Your task to perform on an android device: Search for logitech g pro on ebay, select the first entry, add it to the cart, then select checkout. Image 0: 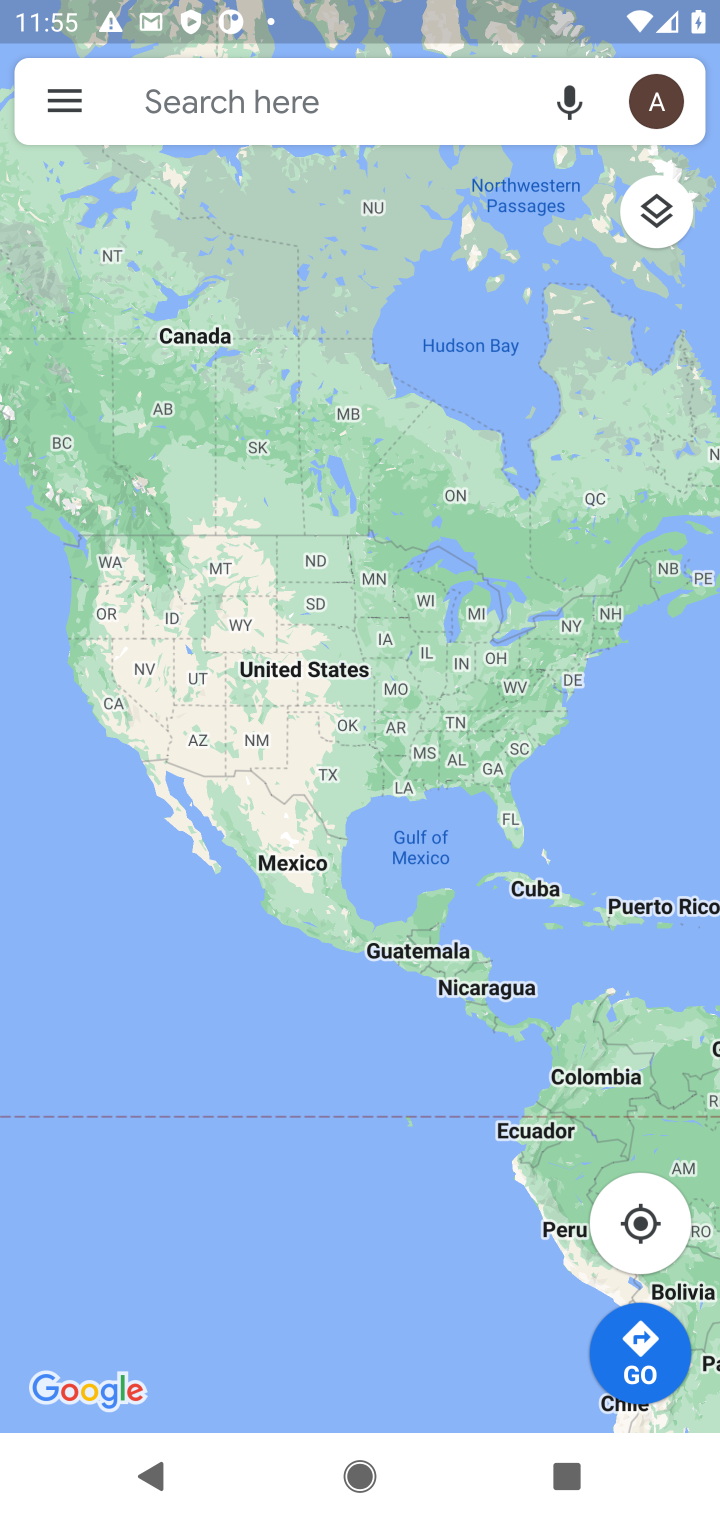
Step 0: press home button
Your task to perform on an android device: Search for logitech g pro on ebay, select the first entry, add it to the cart, then select checkout. Image 1: 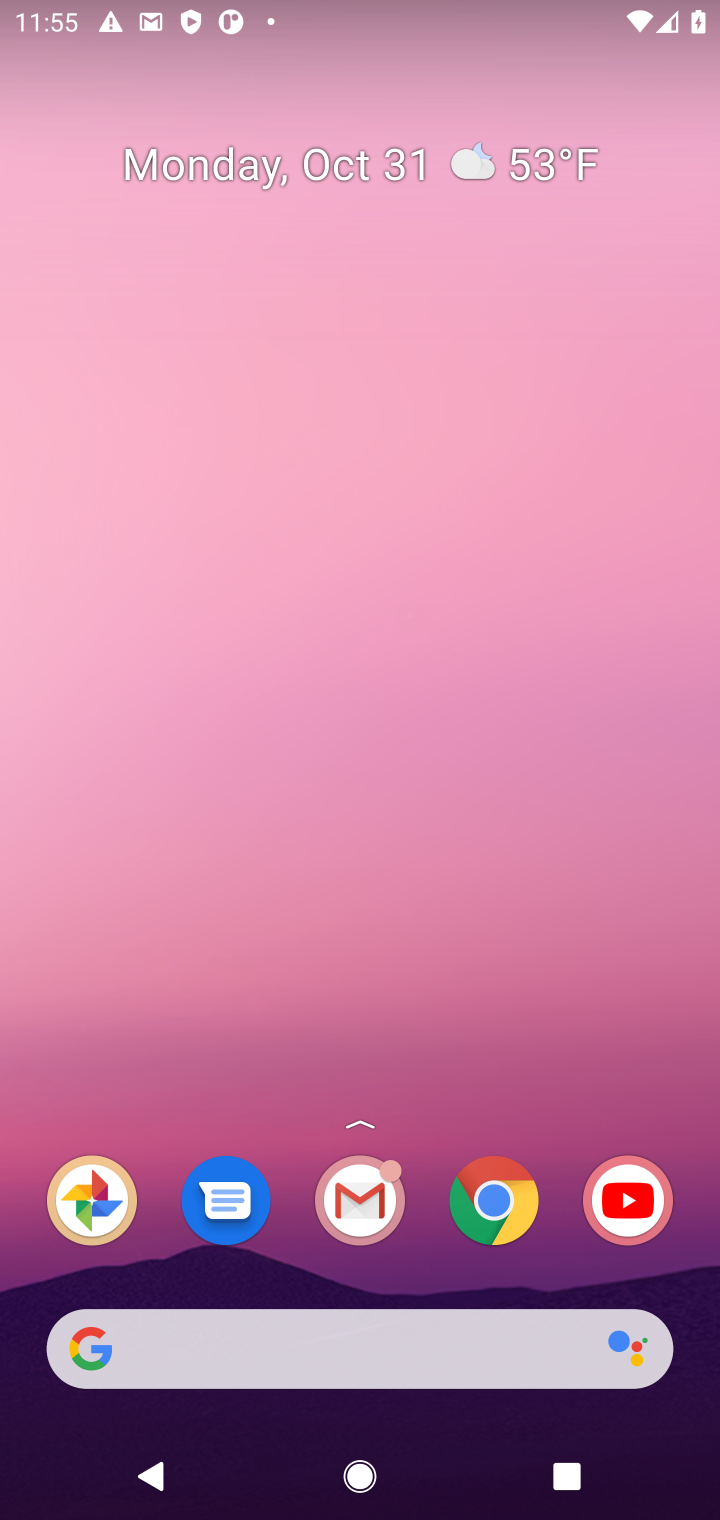
Step 1: click (518, 1218)
Your task to perform on an android device: Search for logitech g pro on ebay, select the first entry, add it to the cart, then select checkout. Image 2: 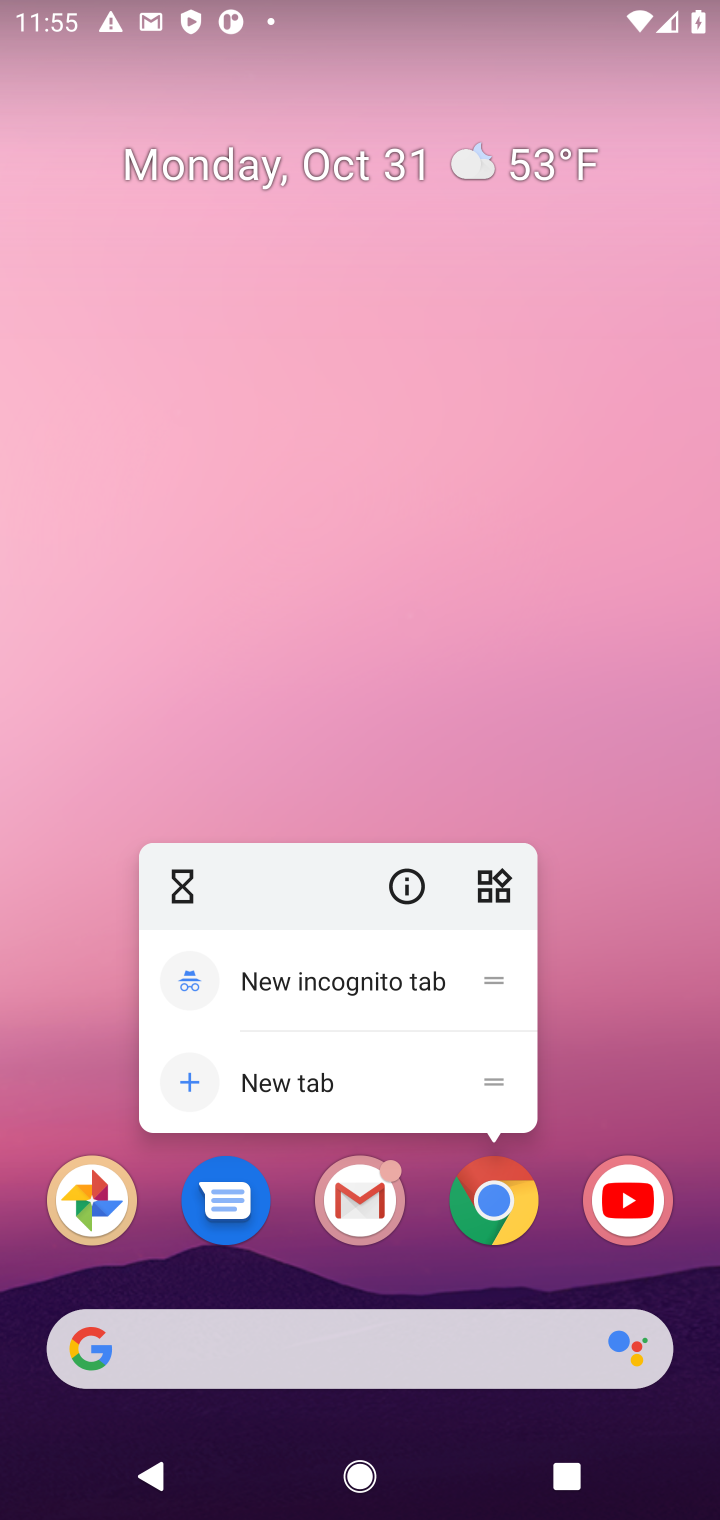
Step 2: click (491, 1194)
Your task to perform on an android device: Search for logitech g pro on ebay, select the first entry, add it to the cart, then select checkout. Image 3: 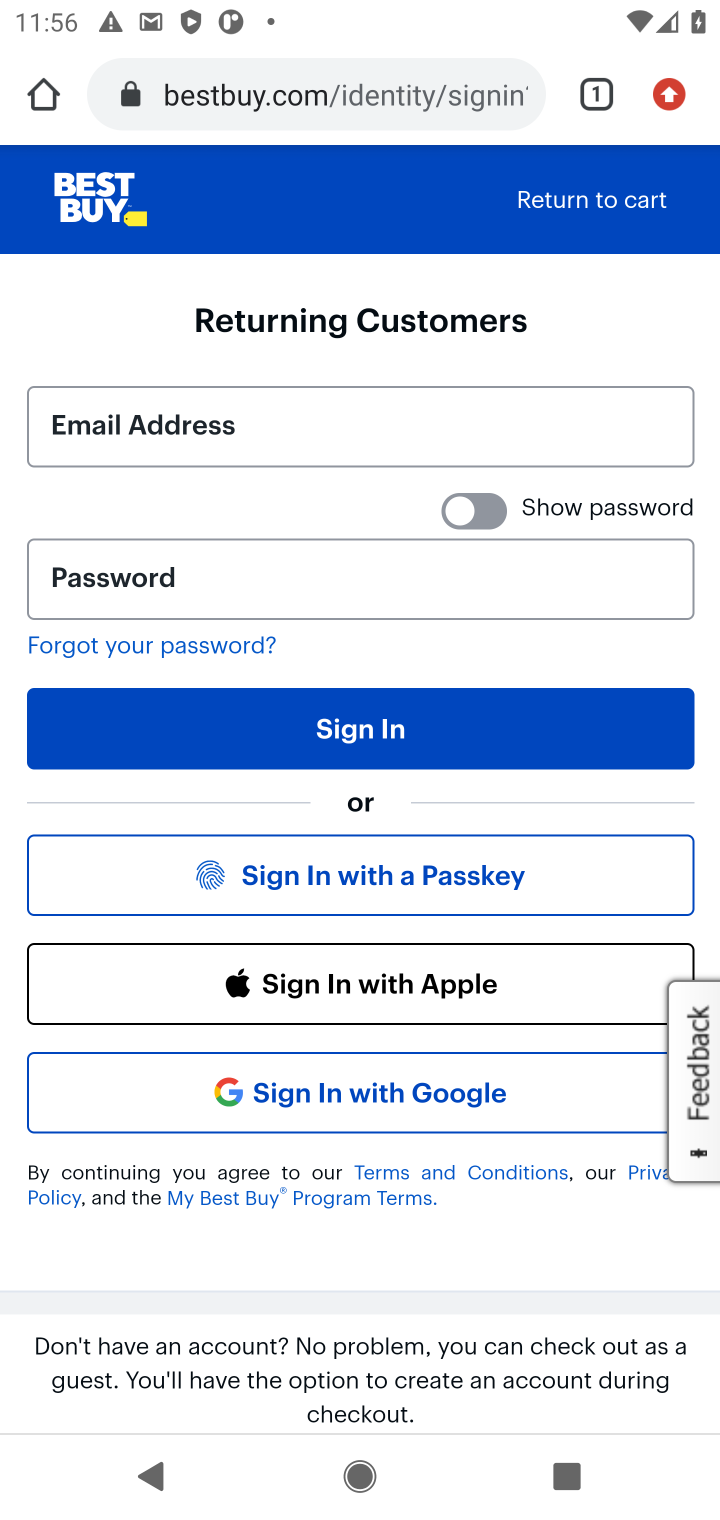
Step 3: click (240, 79)
Your task to perform on an android device: Search for logitech g pro on ebay, select the first entry, add it to the cart, then select checkout. Image 4: 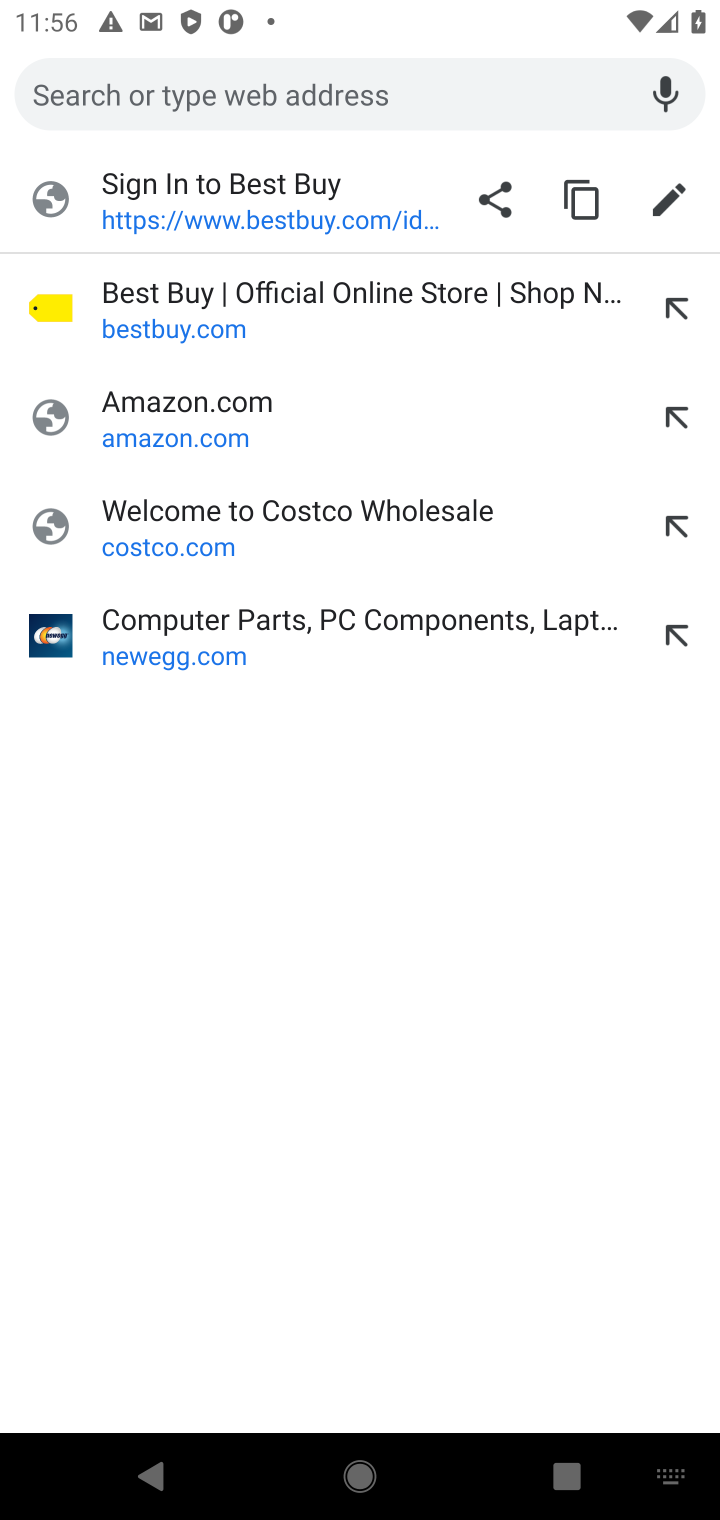
Step 4: type "ebay"
Your task to perform on an android device: Search for logitech g pro on ebay, select the first entry, add it to the cart, then select checkout. Image 5: 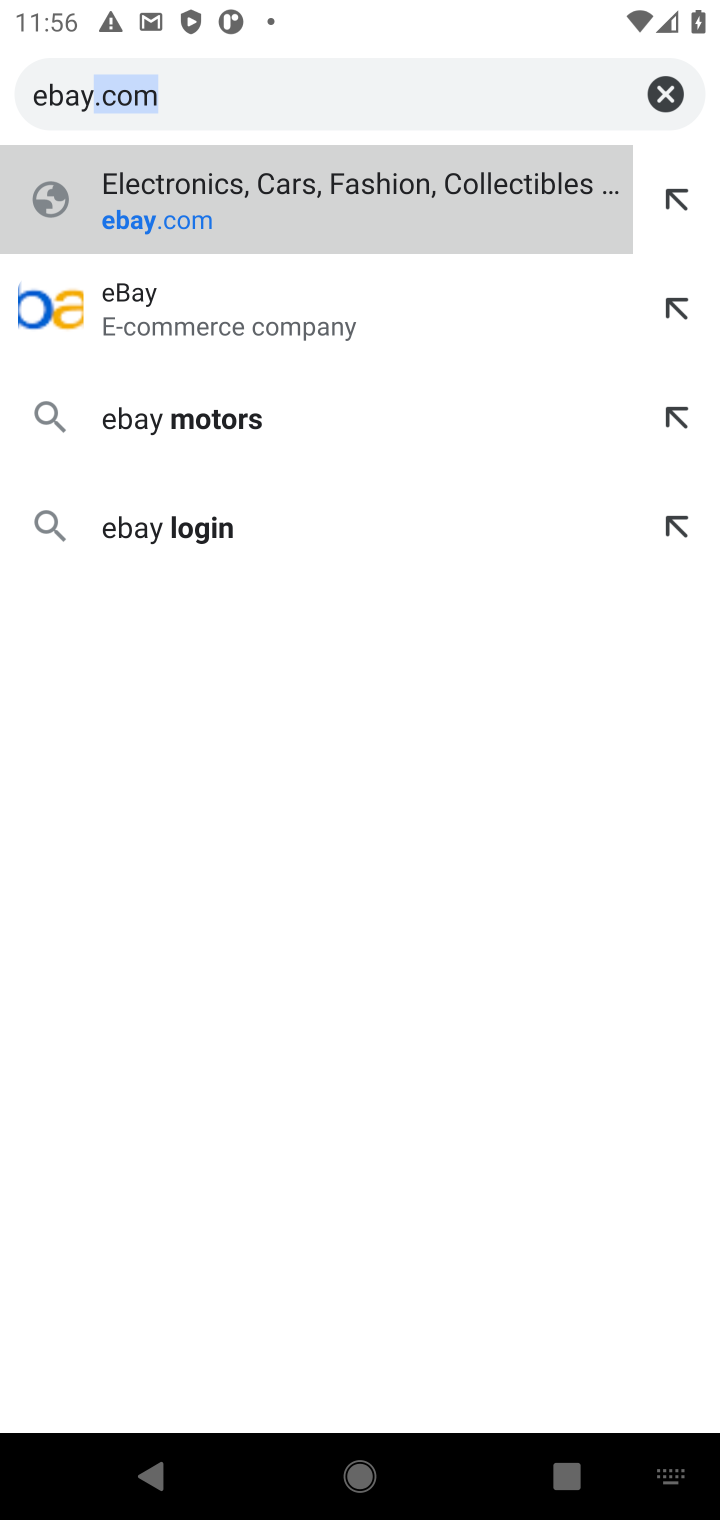
Step 5: type ""
Your task to perform on an android device: Search for logitech g pro on ebay, select the first entry, add it to the cart, then select checkout. Image 6: 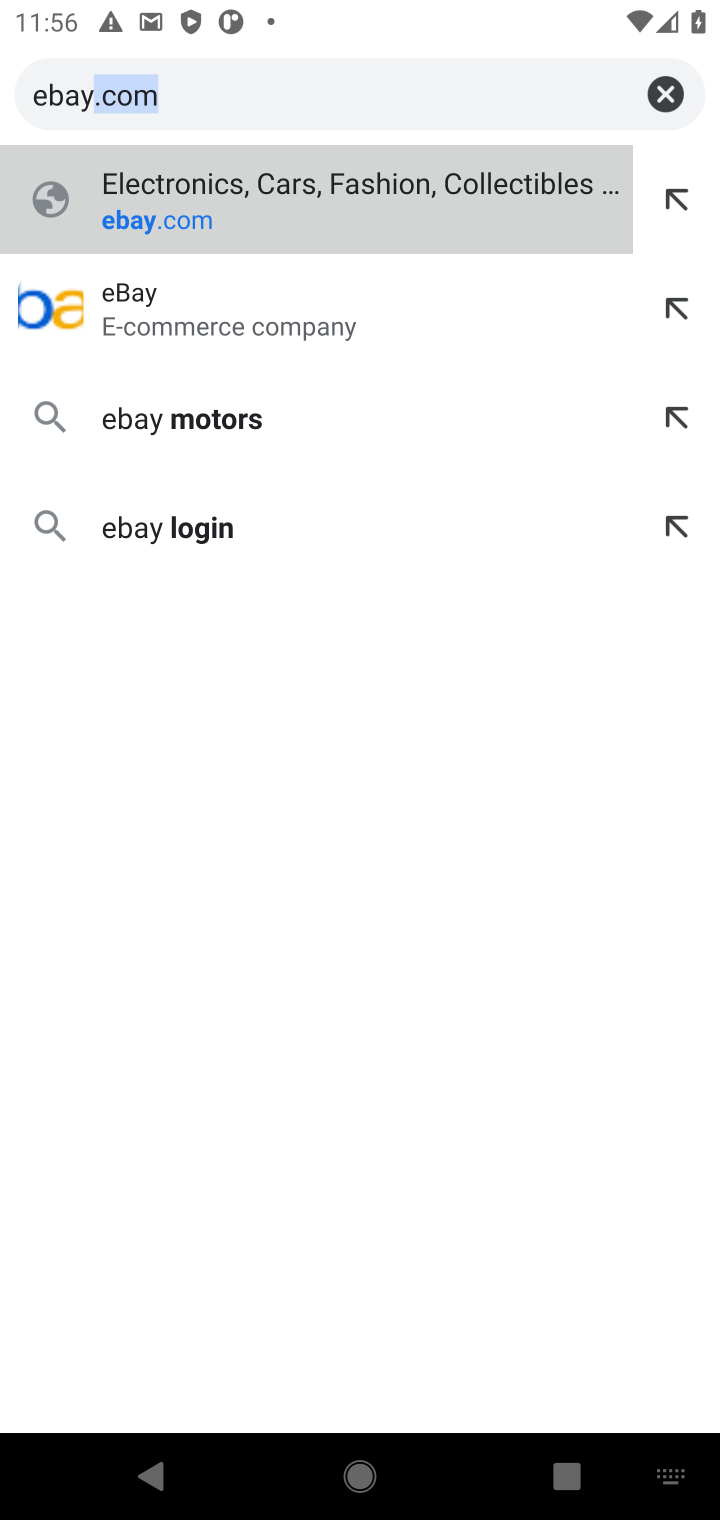
Step 6: click (435, 214)
Your task to perform on an android device: Search for logitech g pro on ebay, select the first entry, add it to the cart, then select checkout. Image 7: 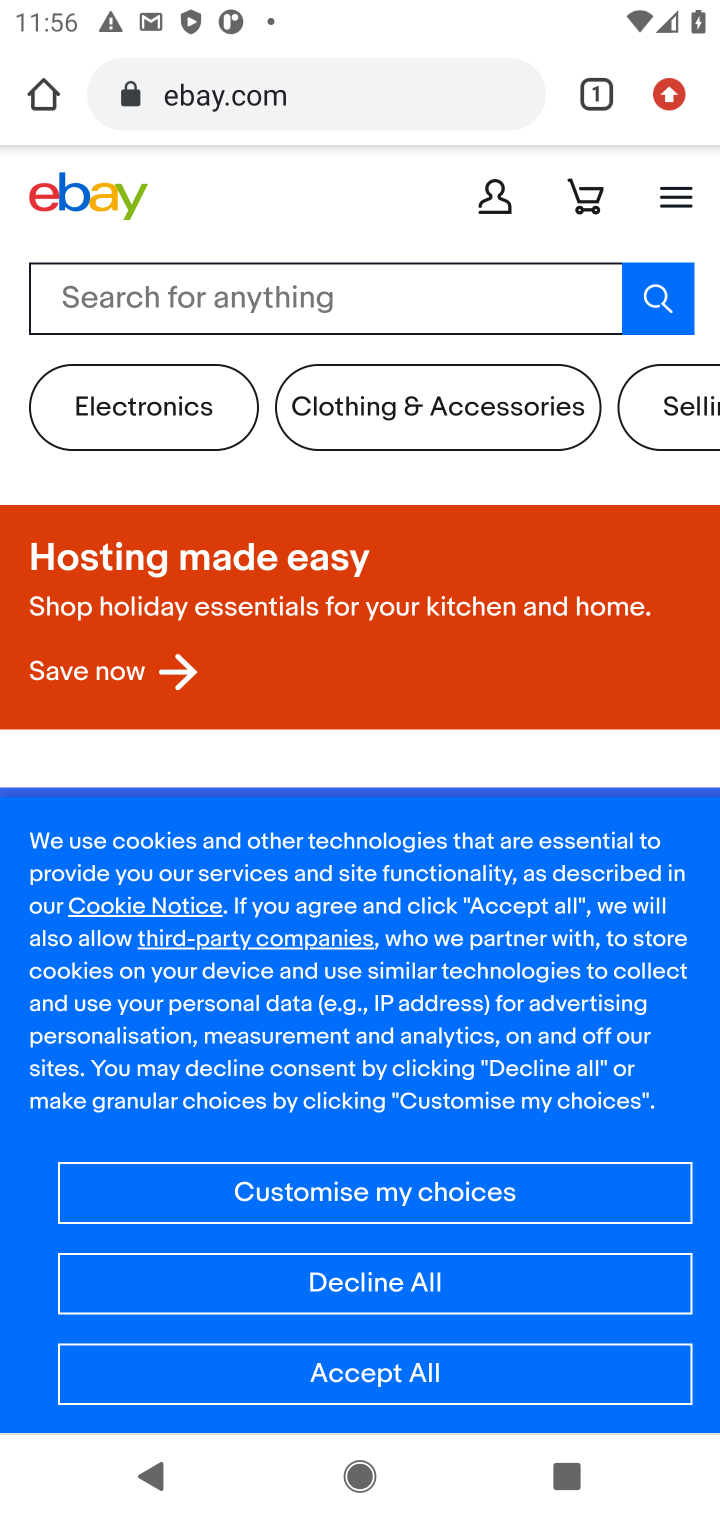
Step 7: click (251, 289)
Your task to perform on an android device: Search for logitech g pro on ebay, select the first entry, add it to the cart, then select checkout. Image 8: 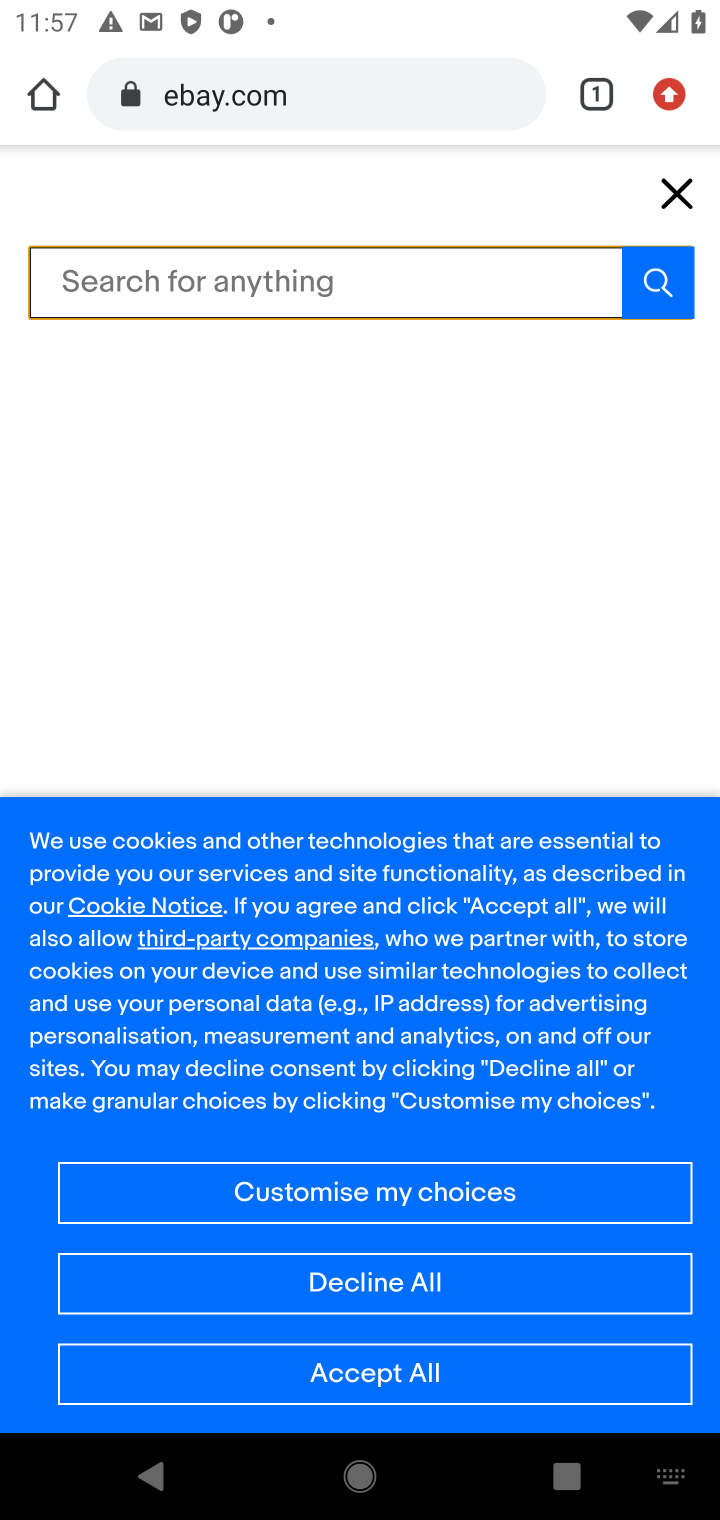
Step 8: type " logitech g pro "
Your task to perform on an android device: Search for logitech g pro on ebay, select the first entry, add it to the cart, then select checkout. Image 9: 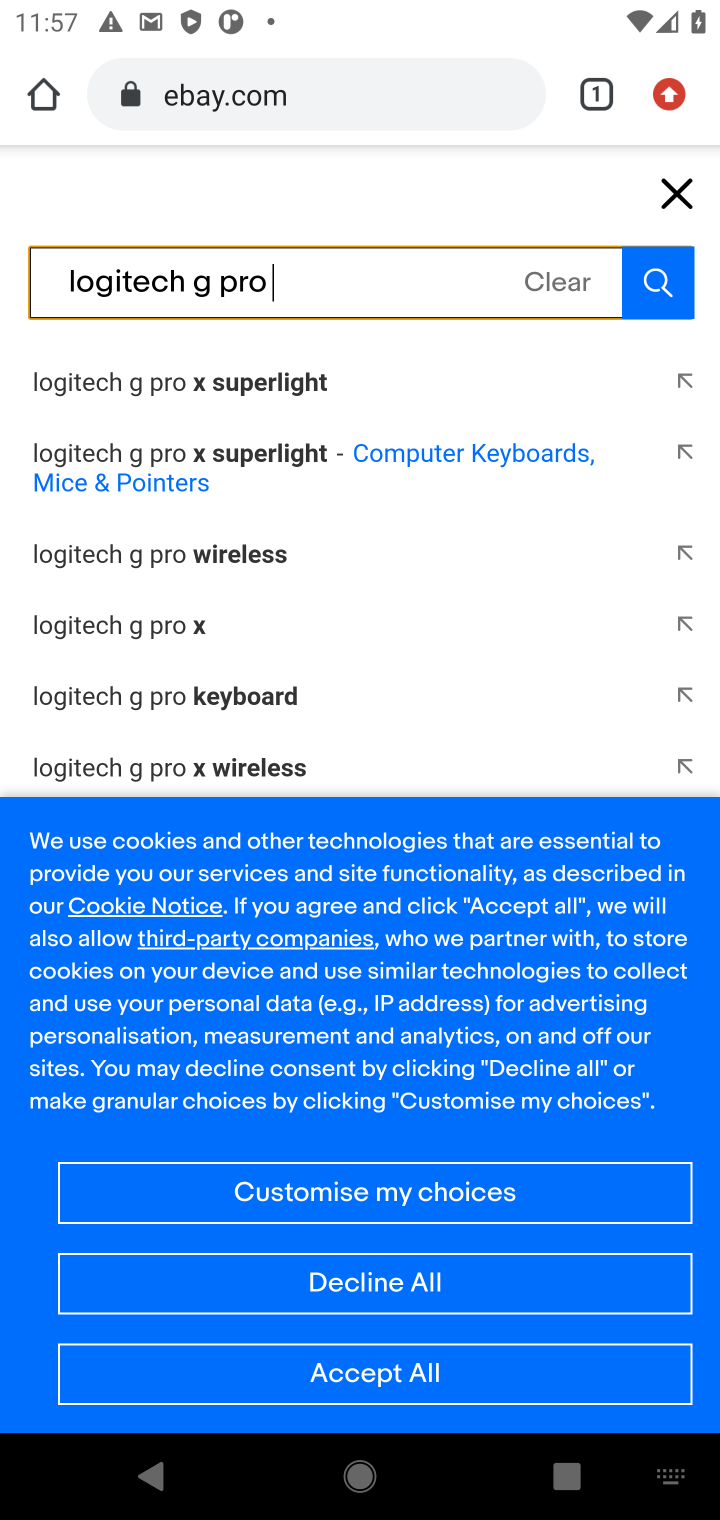
Step 9: click (660, 286)
Your task to perform on an android device: Search for logitech g pro on ebay, select the first entry, add it to the cart, then select checkout. Image 10: 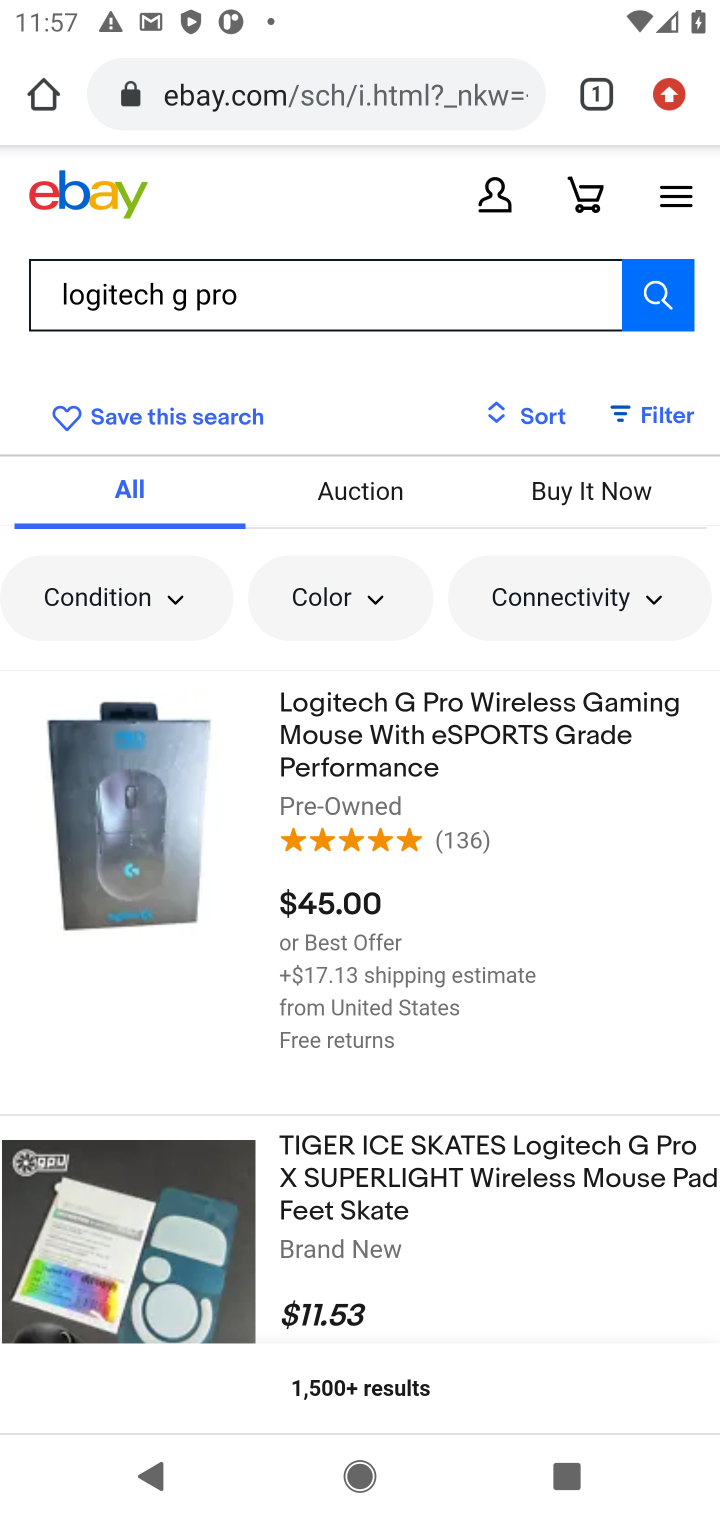
Step 10: click (398, 764)
Your task to perform on an android device: Search for logitech g pro on ebay, select the first entry, add it to the cart, then select checkout. Image 11: 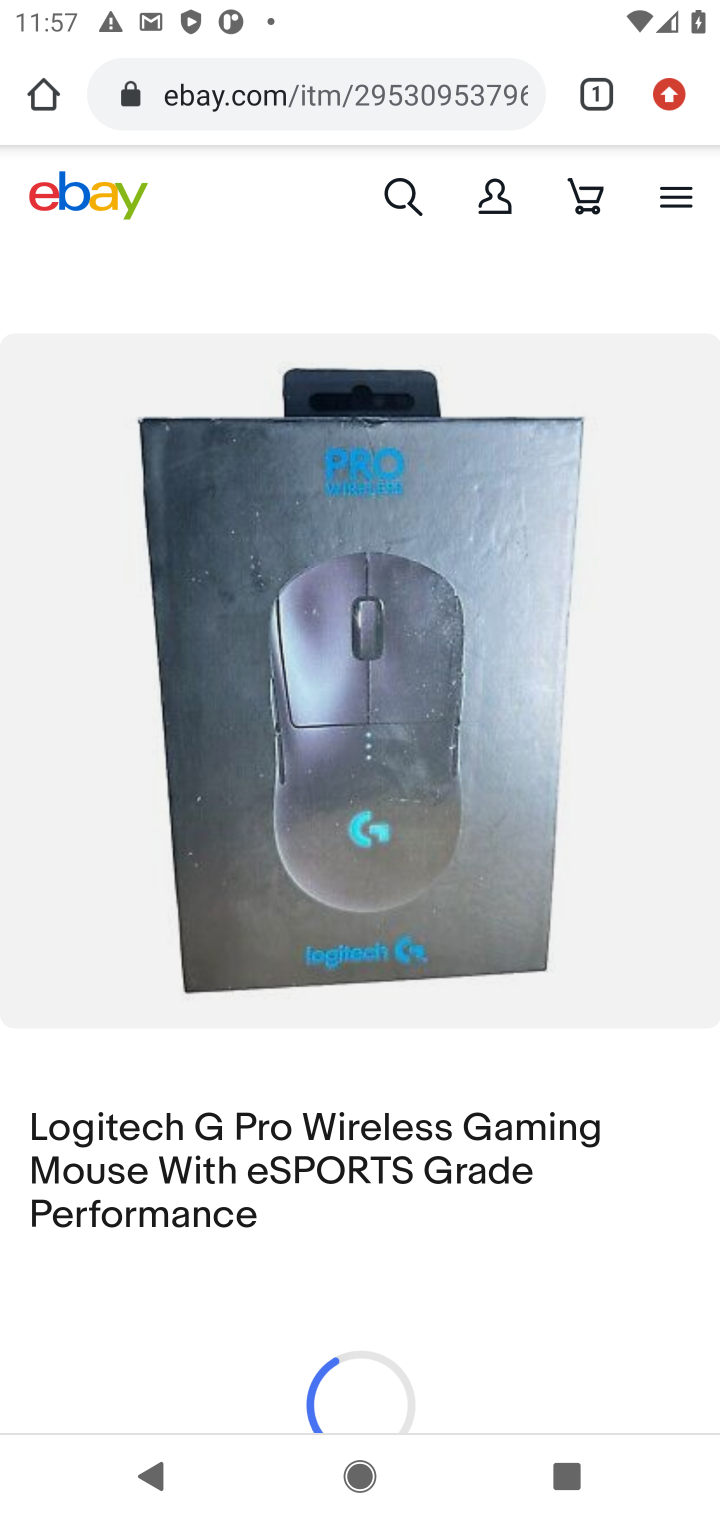
Step 11: drag from (494, 1214) to (566, 618)
Your task to perform on an android device: Search for logitech g pro on ebay, select the first entry, add it to the cart, then select checkout. Image 12: 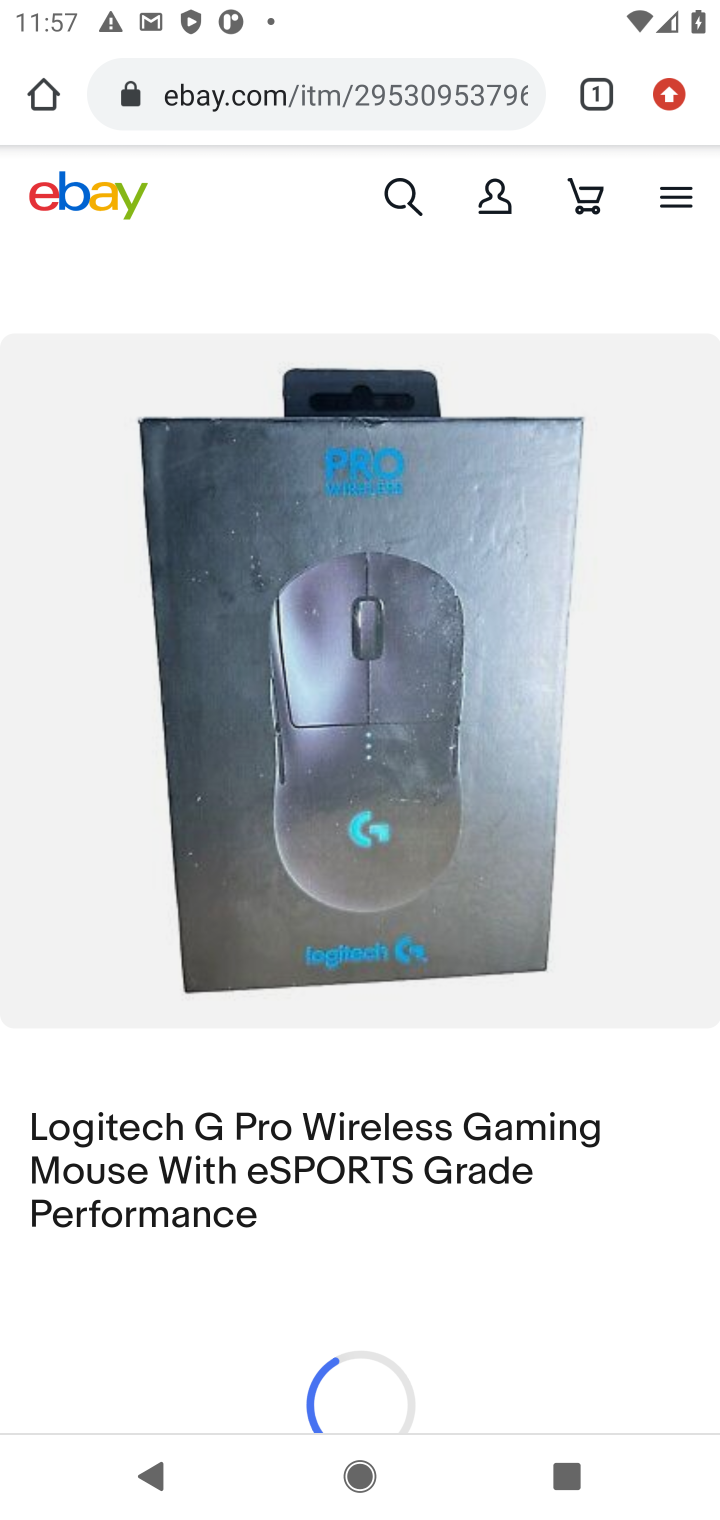
Step 12: click (446, 716)
Your task to perform on an android device: Search for logitech g pro on ebay, select the first entry, add it to the cart, then select checkout. Image 13: 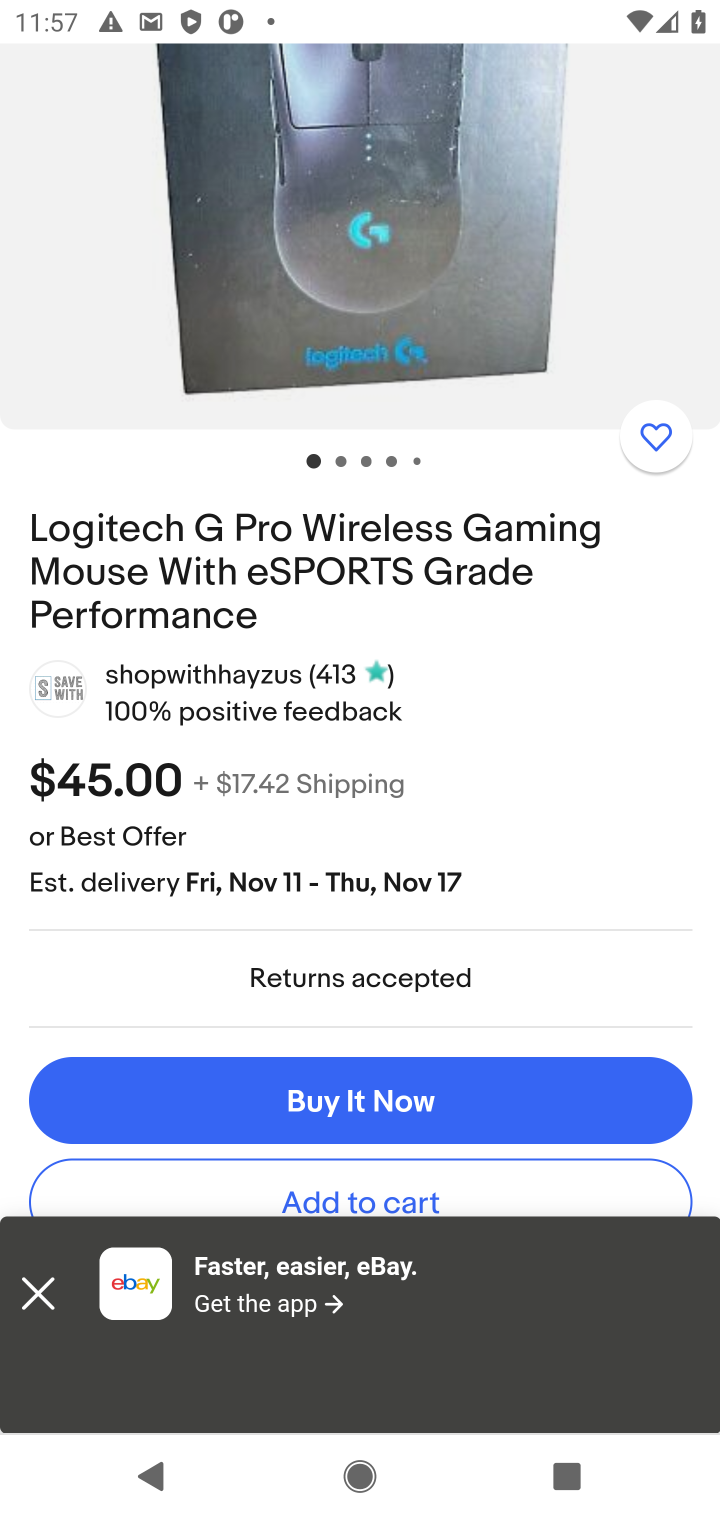
Step 13: click (39, 1289)
Your task to perform on an android device: Search for logitech g pro on ebay, select the first entry, add it to the cart, then select checkout. Image 14: 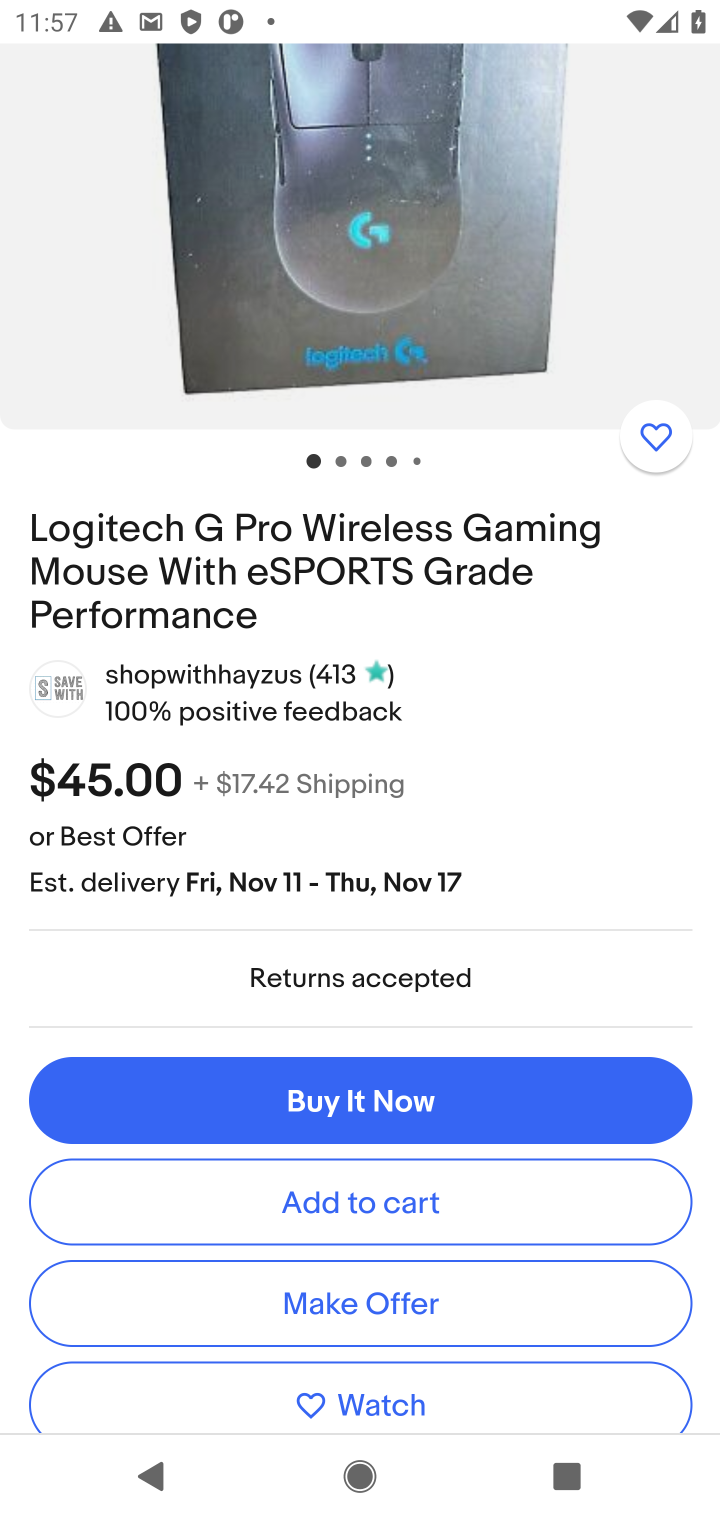
Step 14: click (255, 1208)
Your task to perform on an android device: Search for logitech g pro on ebay, select the first entry, add it to the cart, then select checkout. Image 15: 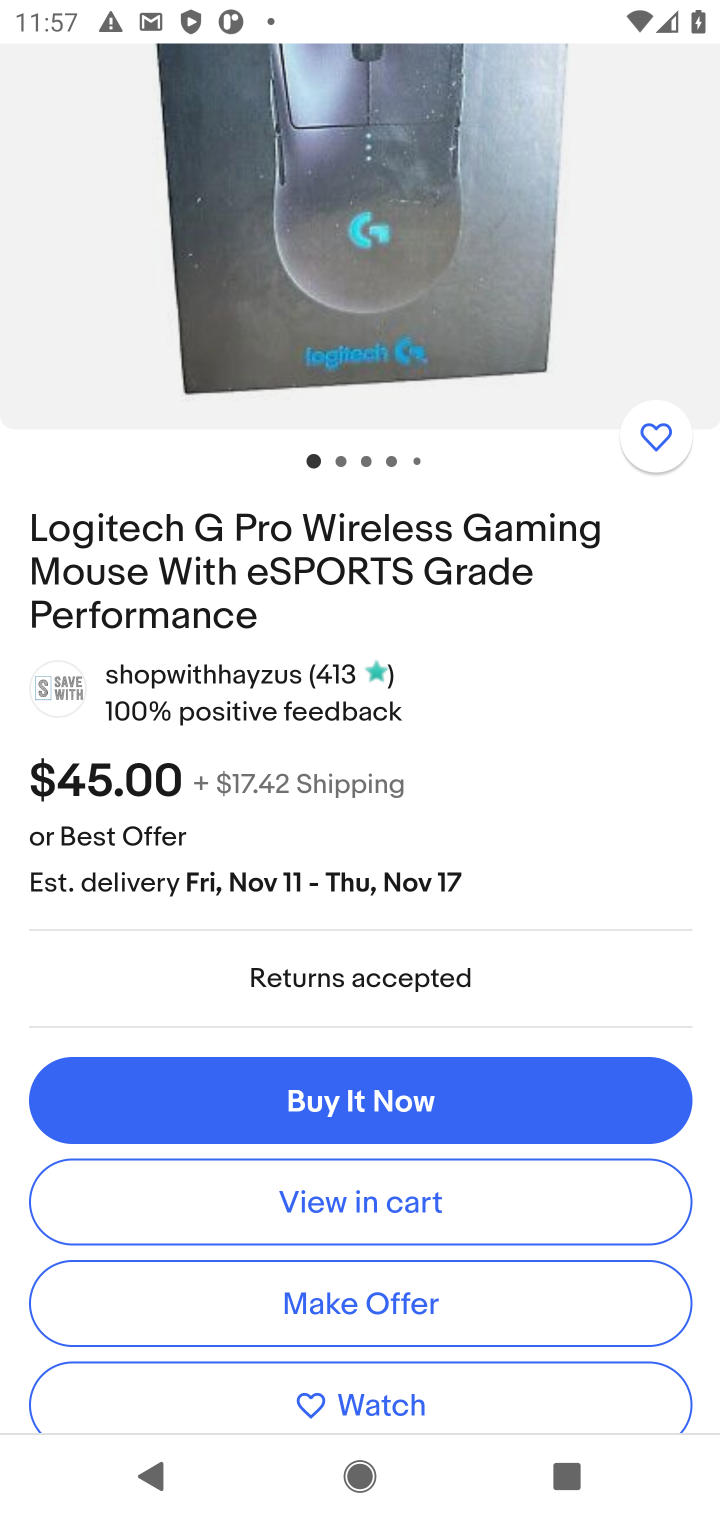
Step 15: click (367, 1185)
Your task to perform on an android device: Search for logitech g pro on ebay, select the first entry, add it to the cart, then select checkout. Image 16: 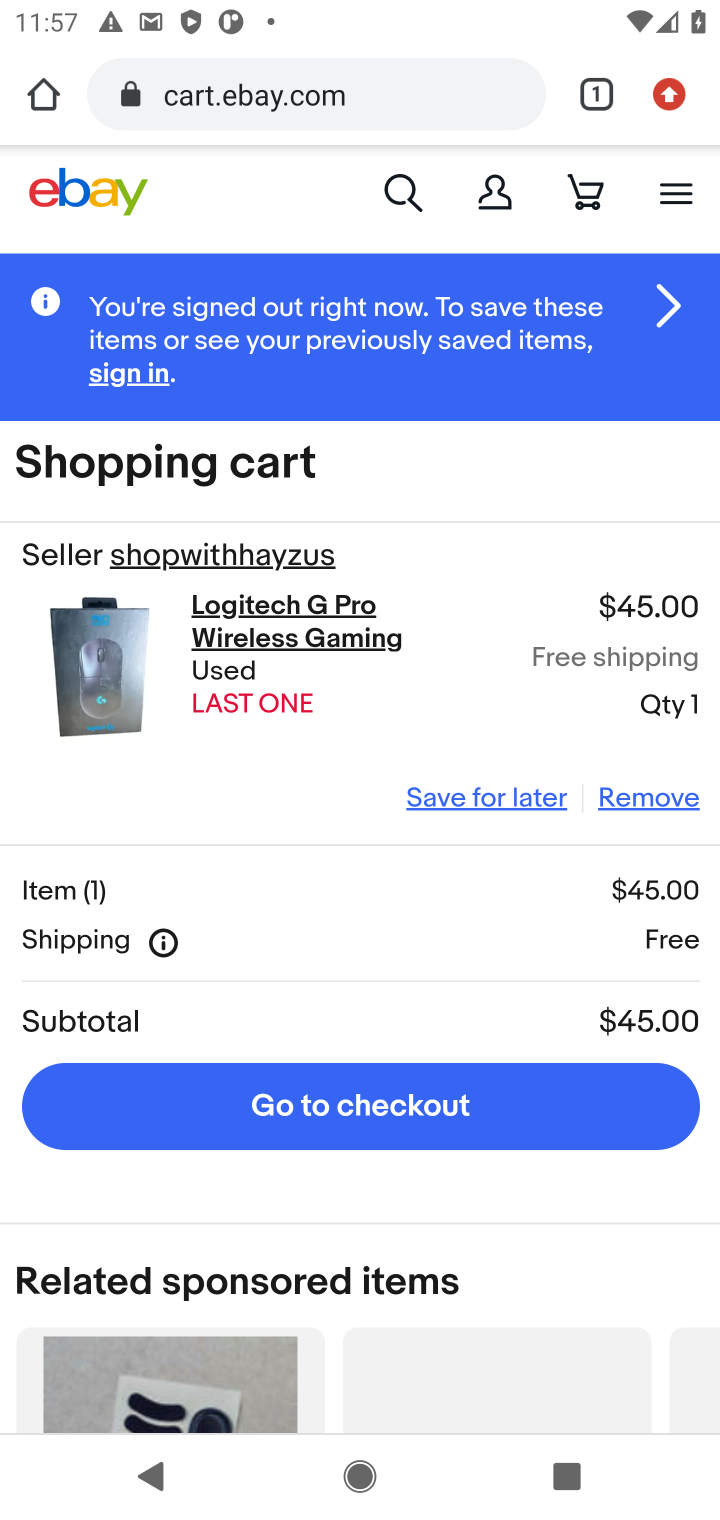
Step 16: click (365, 1125)
Your task to perform on an android device: Search for logitech g pro on ebay, select the first entry, add it to the cart, then select checkout. Image 17: 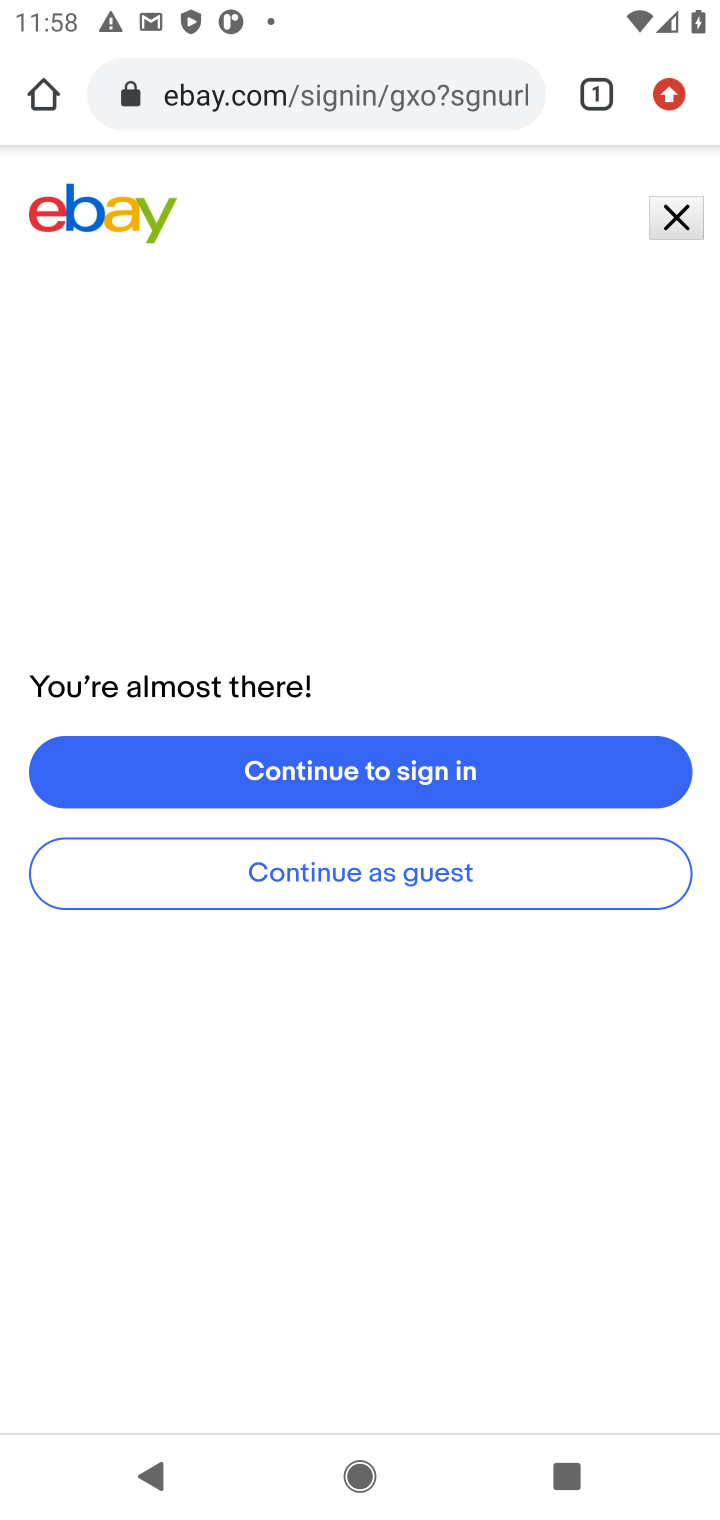
Step 17: click (469, 848)
Your task to perform on an android device: Search for logitech g pro on ebay, select the first entry, add it to the cart, then select checkout. Image 18: 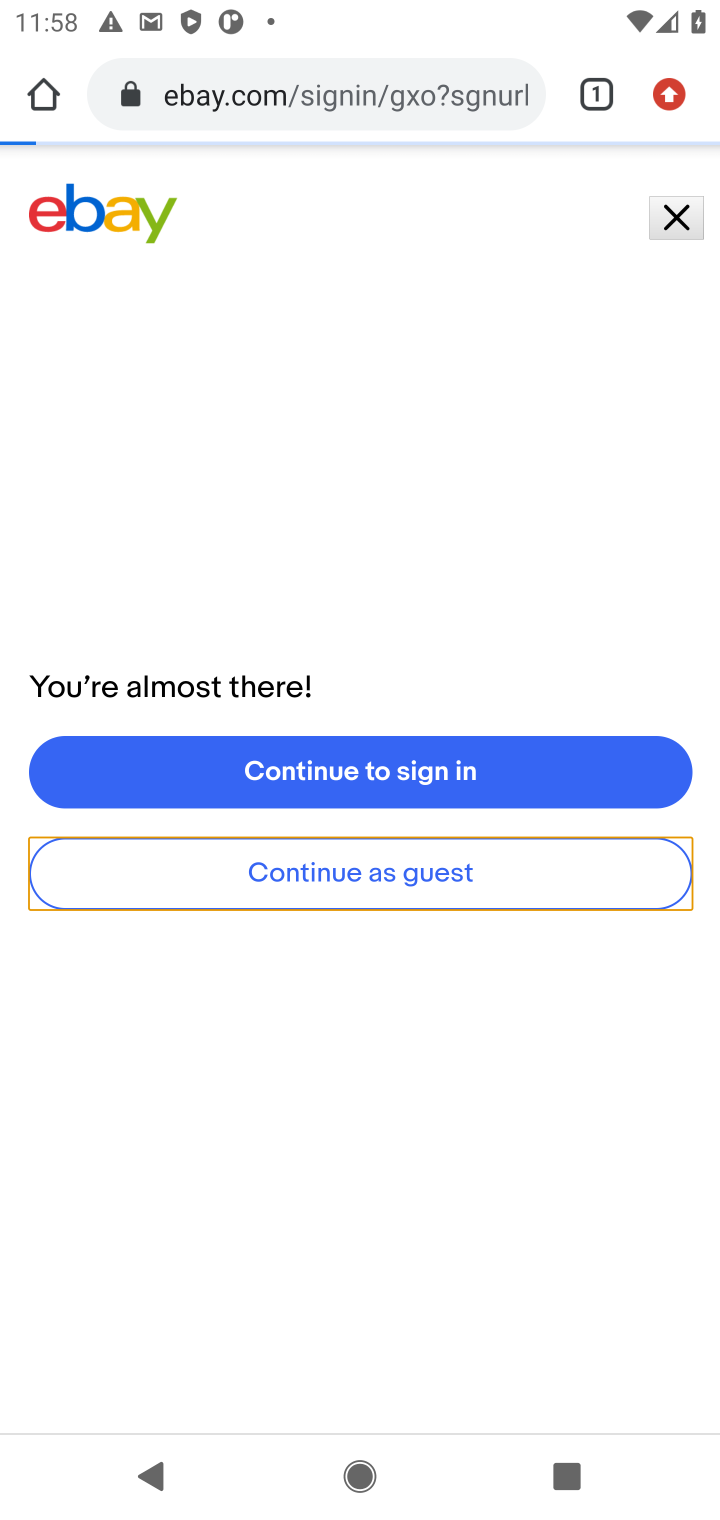
Step 18: click (459, 875)
Your task to perform on an android device: Search for logitech g pro on ebay, select the first entry, add it to the cart, then select checkout. Image 19: 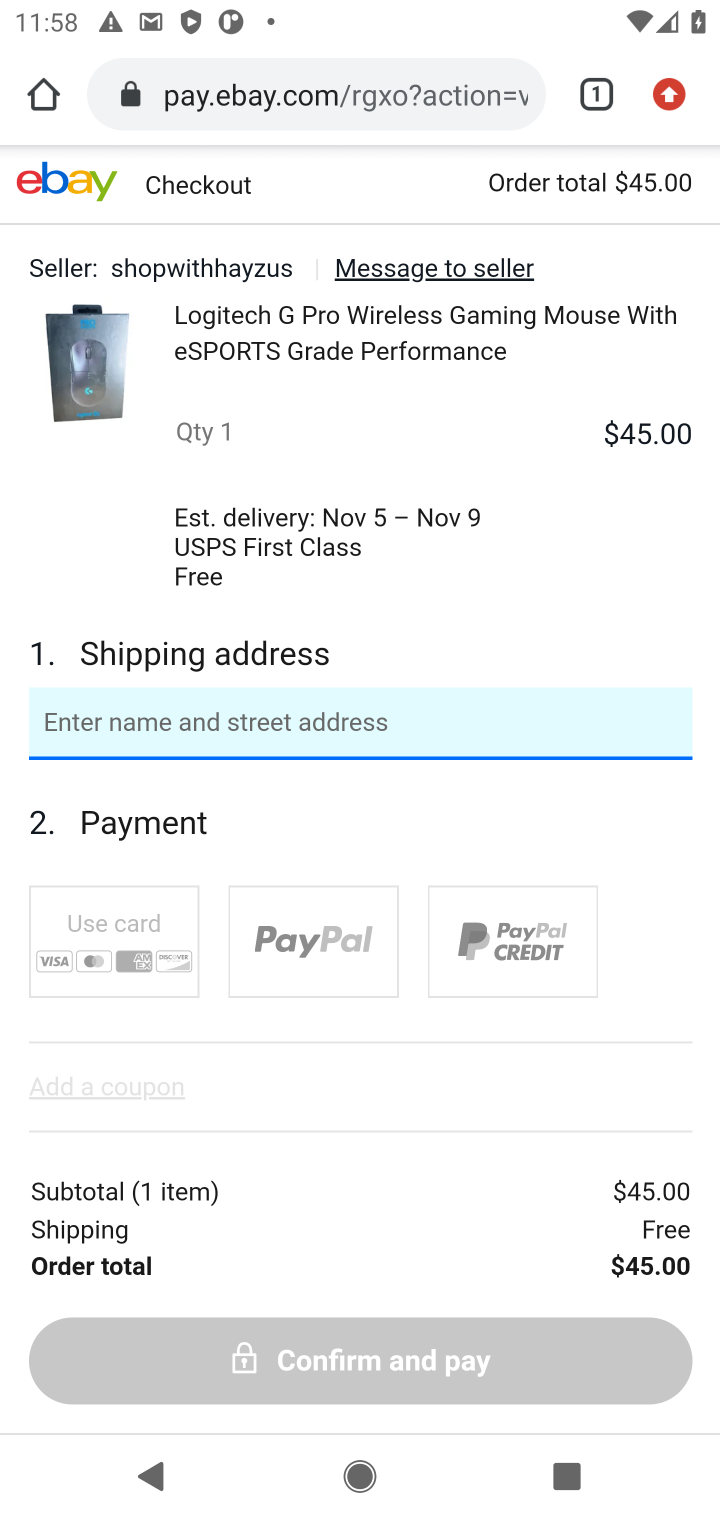
Step 19: task complete